Your task to perform on an android device: Go to Reddit.com Image 0: 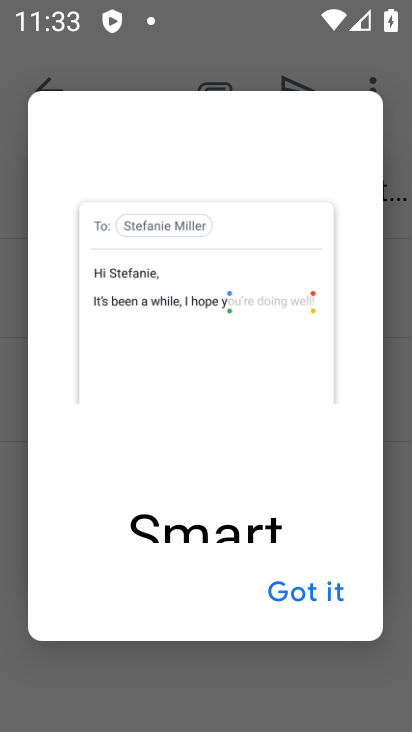
Step 0: press home button
Your task to perform on an android device: Go to Reddit.com Image 1: 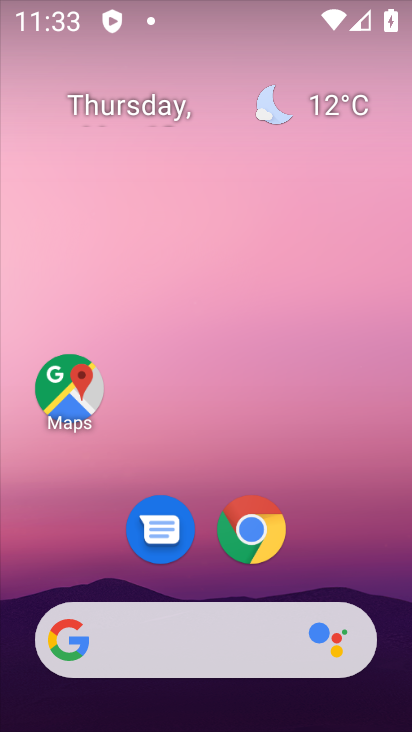
Step 1: drag from (289, 577) to (309, 280)
Your task to perform on an android device: Go to Reddit.com Image 2: 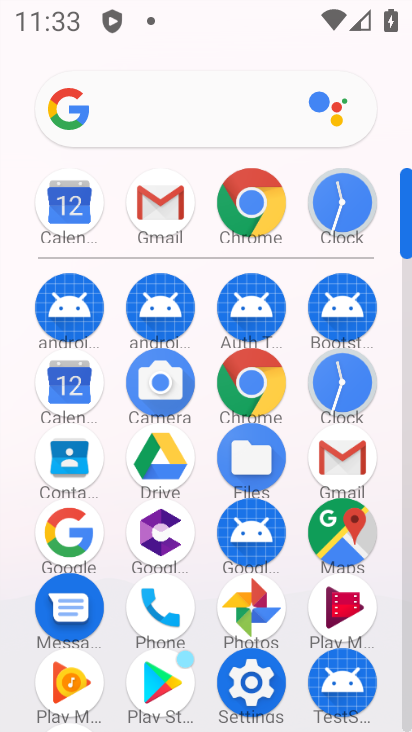
Step 2: click (259, 196)
Your task to perform on an android device: Go to Reddit.com Image 3: 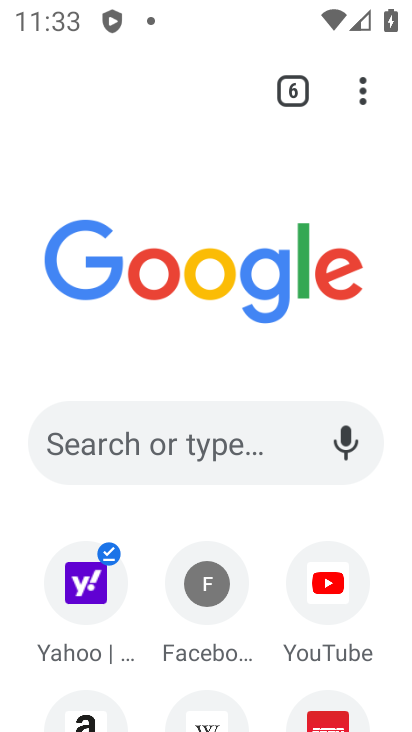
Step 3: click (200, 430)
Your task to perform on an android device: Go to Reddit.com Image 4: 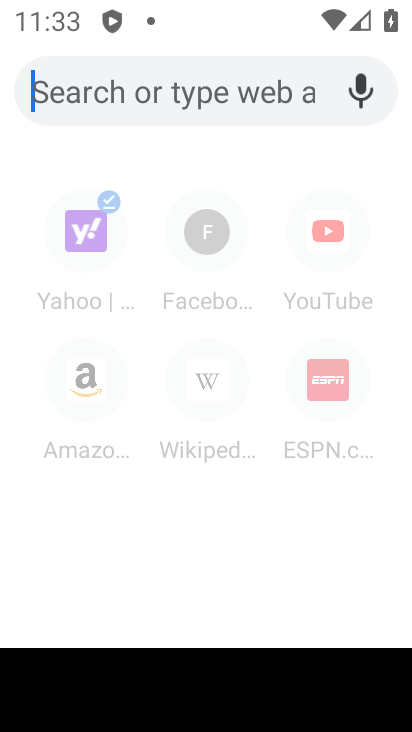
Step 4: click (113, 94)
Your task to perform on an android device: Go to Reddit.com Image 5: 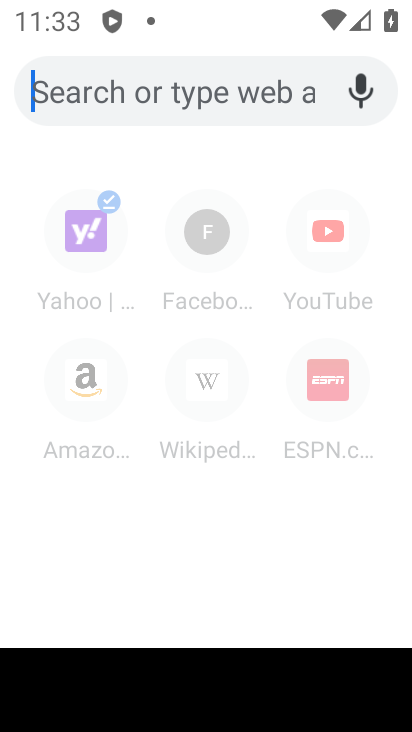
Step 5: type "Reddit.com"
Your task to perform on an android device: Go to Reddit.com Image 6: 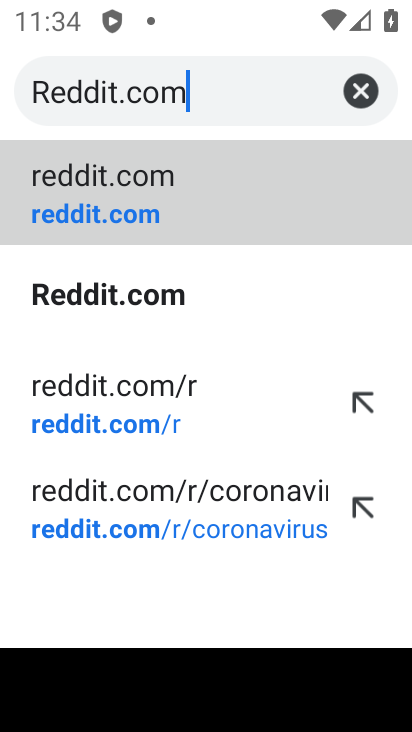
Step 6: click (181, 189)
Your task to perform on an android device: Go to Reddit.com Image 7: 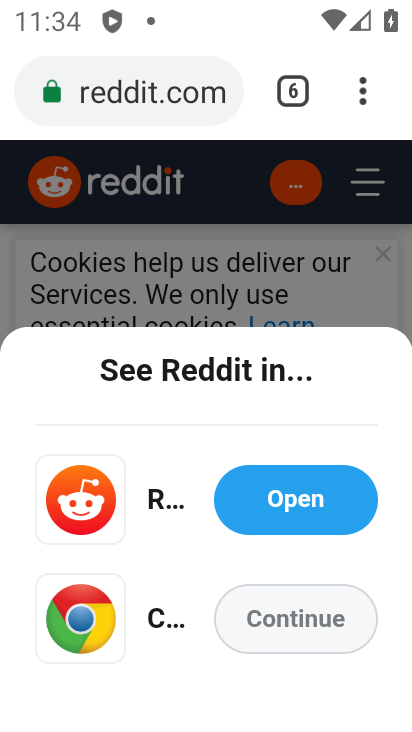
Step 7: click (253, 504)
Your task to perform on an android device: Go to Reddit.com Image 8: 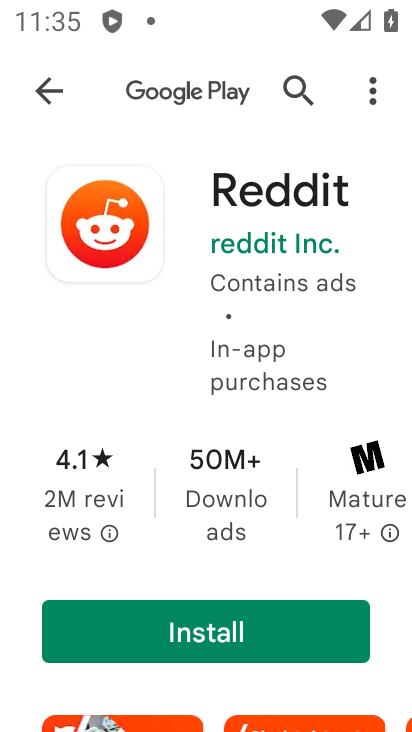
Step 8: task complete